Your task to perform on an android device: Open Maps and search for coffee Image 0: 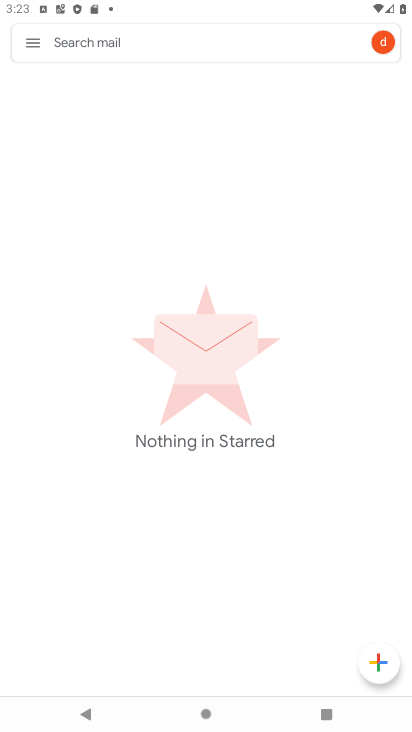
Step 0: press home button
Your task to perform on an android device: Open Maps and search for coffee Image 1: 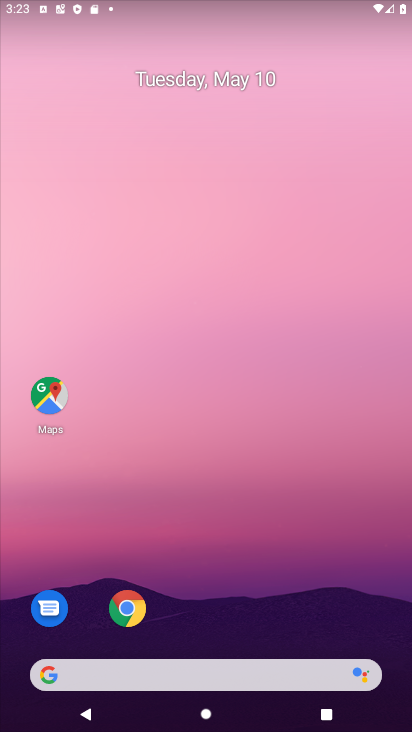
Step 1: click (51, 394)
Your task to perform on an android device: Open Maps and search for coffee Image 2: 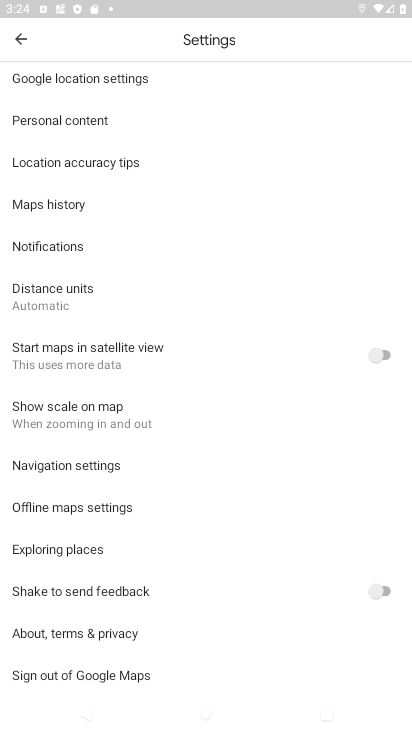
Step 2: press back button
Your task to perform on an android device: Open Maps and search for coffee Image 3: 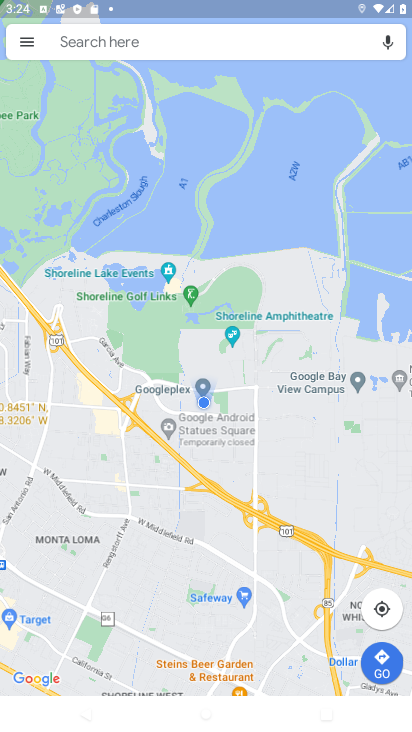
Step 3: click (92, 43)
Your task to perform on an android device: Open Maps and search for coffee Image 4: 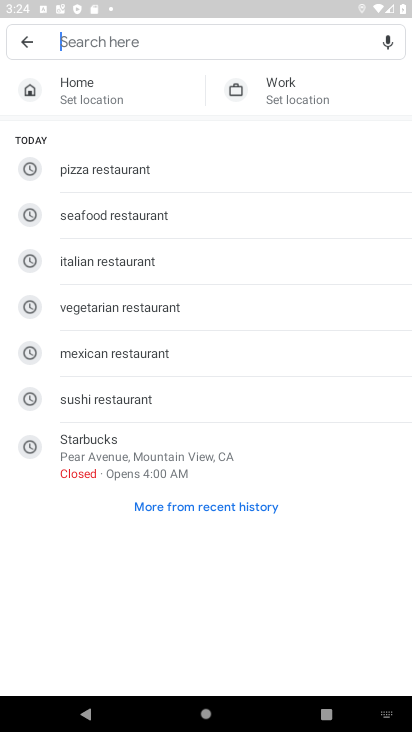
Step 4: type "coffee"
Your task to perform on an android device: Open Maps and search for coffee Image 5: 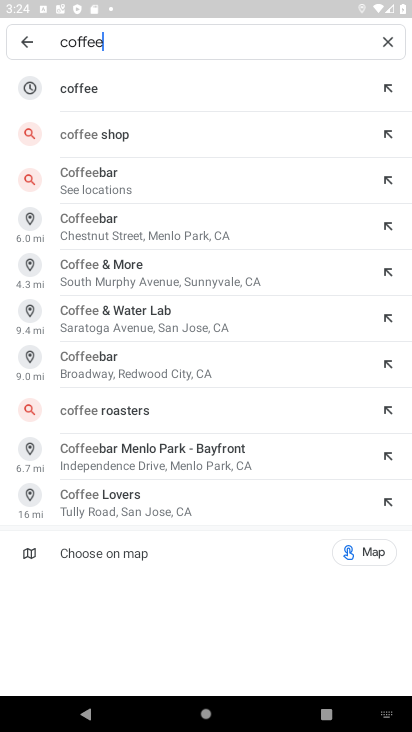
Step 5: click (108, 86)
Your task to perform on an android device: Open Maps and search for coffee Image 6: 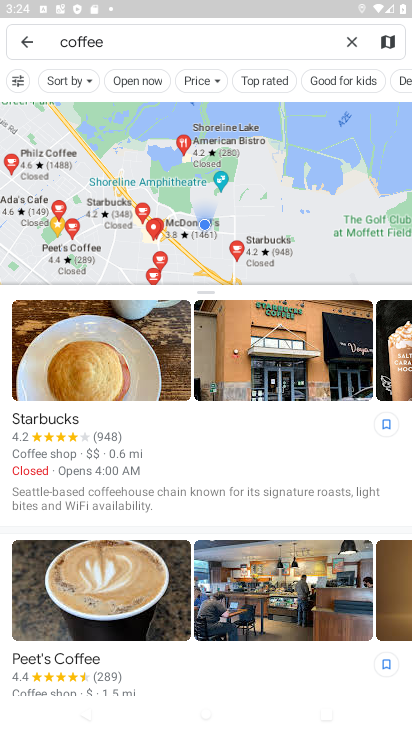
Step 6: task complete